Your task to perform on an android device: Search for a coffee table on IKEA Image 0: 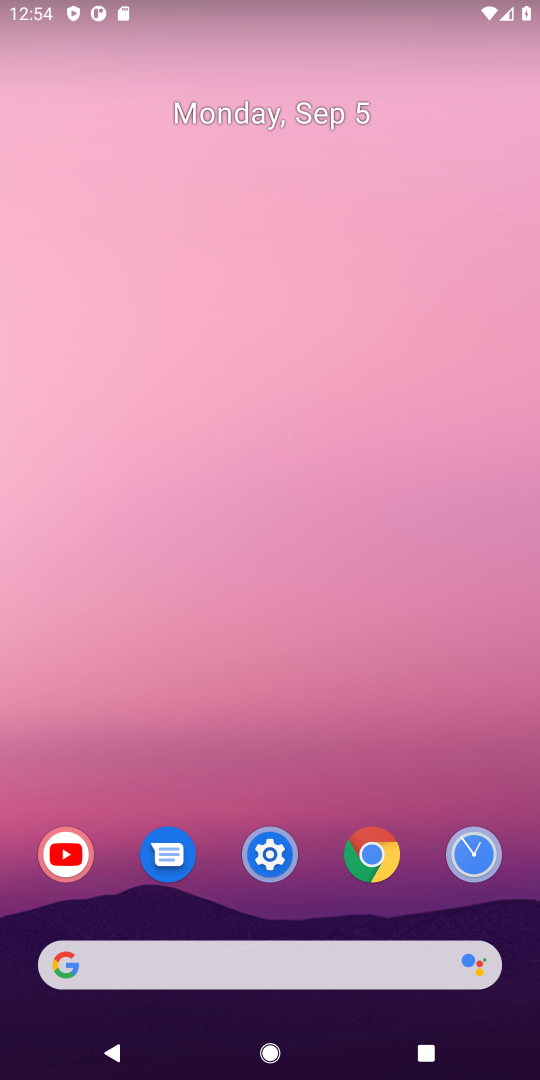
Step 0: click (199, 972)
Your task to perform on an android device: Search for a coffee table on IKEA Image 1: 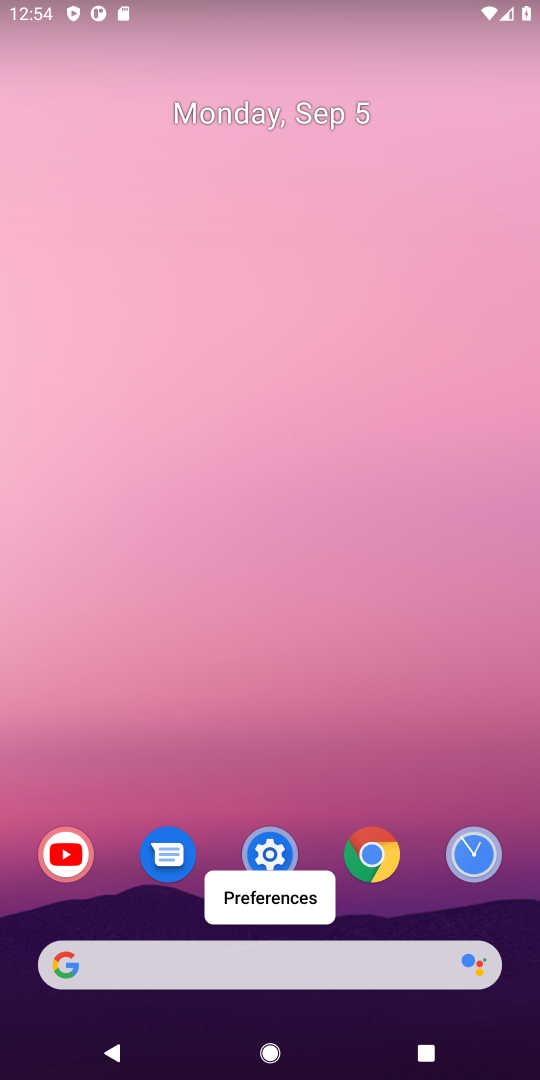
Step 1: click (292, 959)
Your task to perform on an android device: Search for a coffee table on IKEA Image 2: 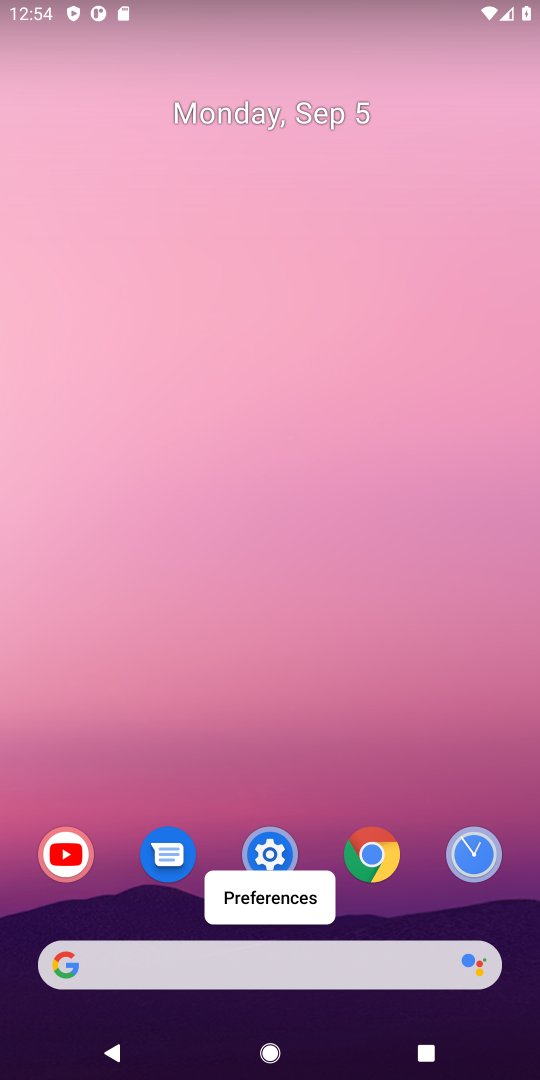
Step 2: click (238, 971)
Your task to perform on an android device: Search for a coffee table on IKEA Image 3: 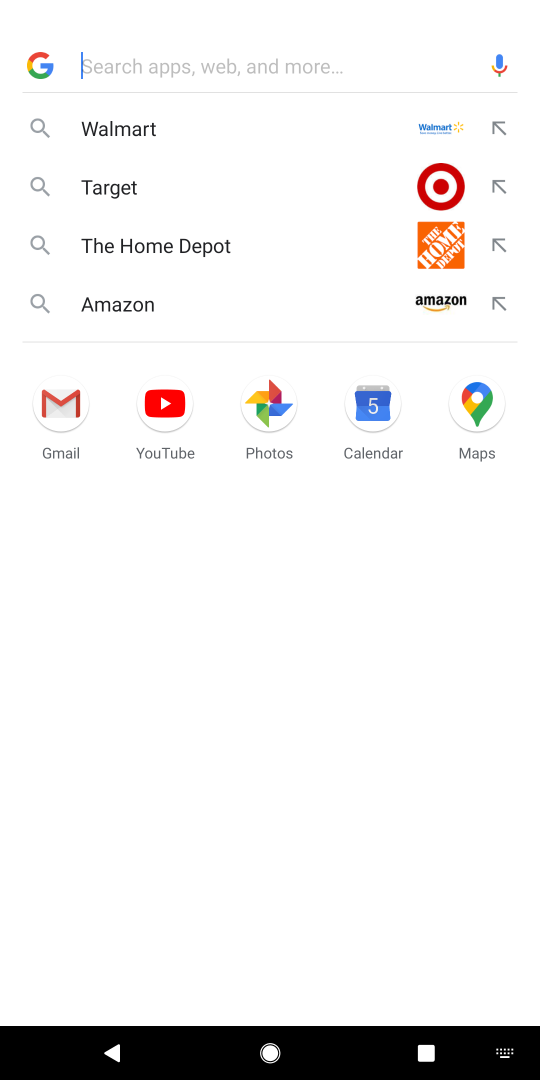
Step 3: type "IKEA"
Your task to perform on an android device: Search for a coffee table on IKEA Image 4: 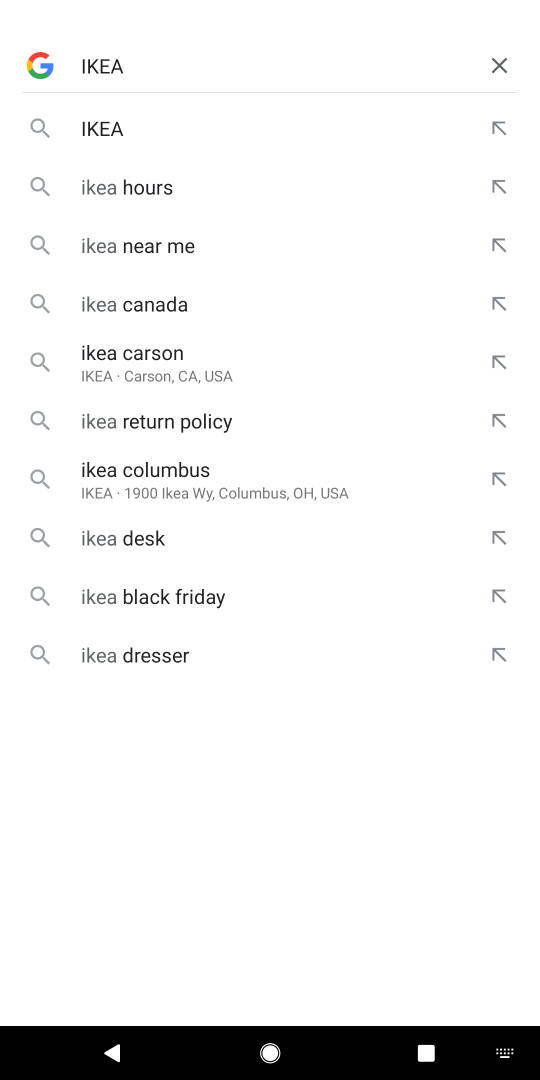
Step 4: type ""
Your task to perform on an android device: Search for a coffee table on IKEA Image 5: 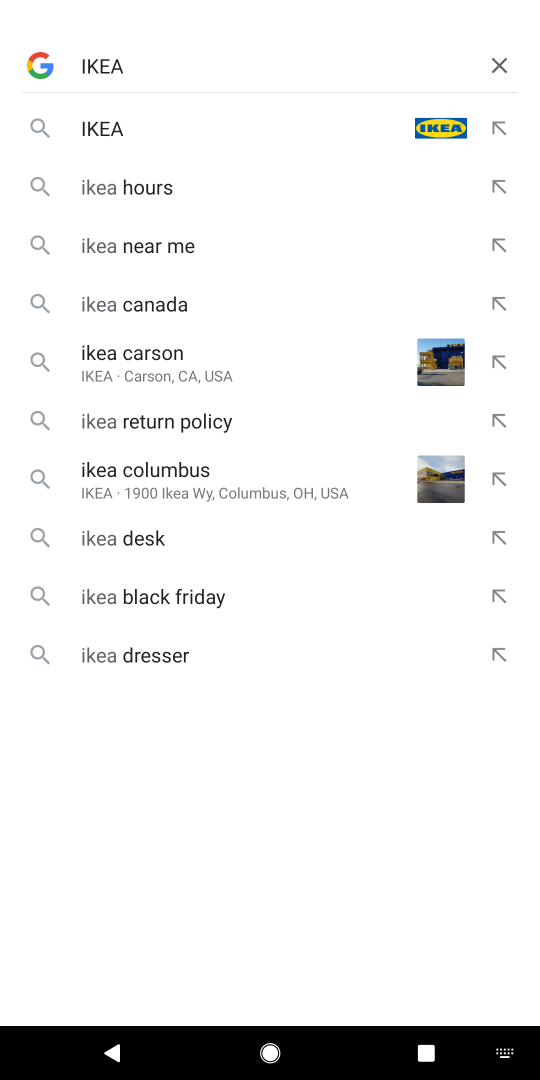
Step 5: click (127, 111)
Your task to perform on an android device: Search for a coffee table on IKEA Image 6: 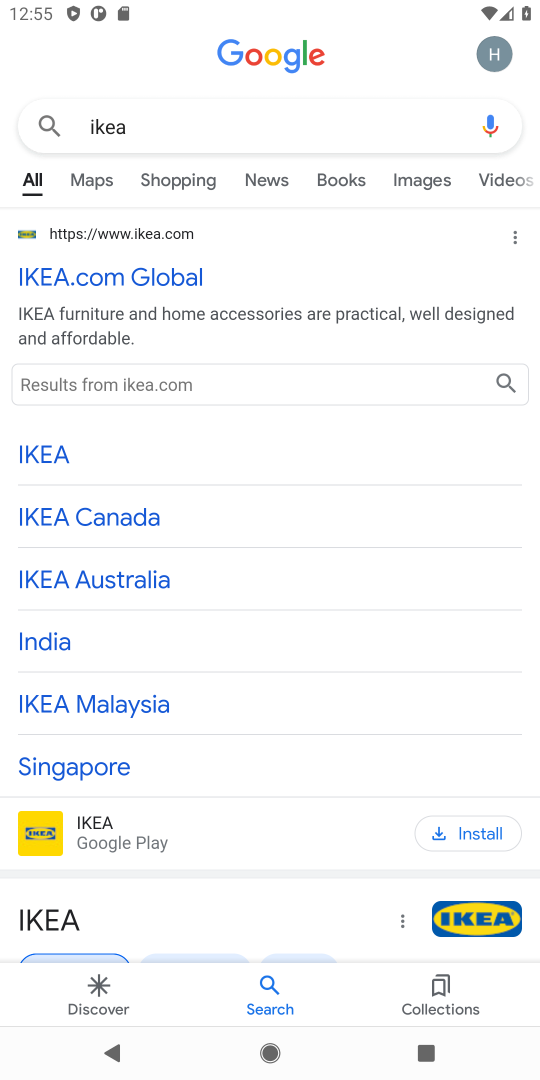
Step 6: drag from (186, 738) to (231, 336)
Your task to perform on an android device: Search for a coffee table on IKEA Image 7: 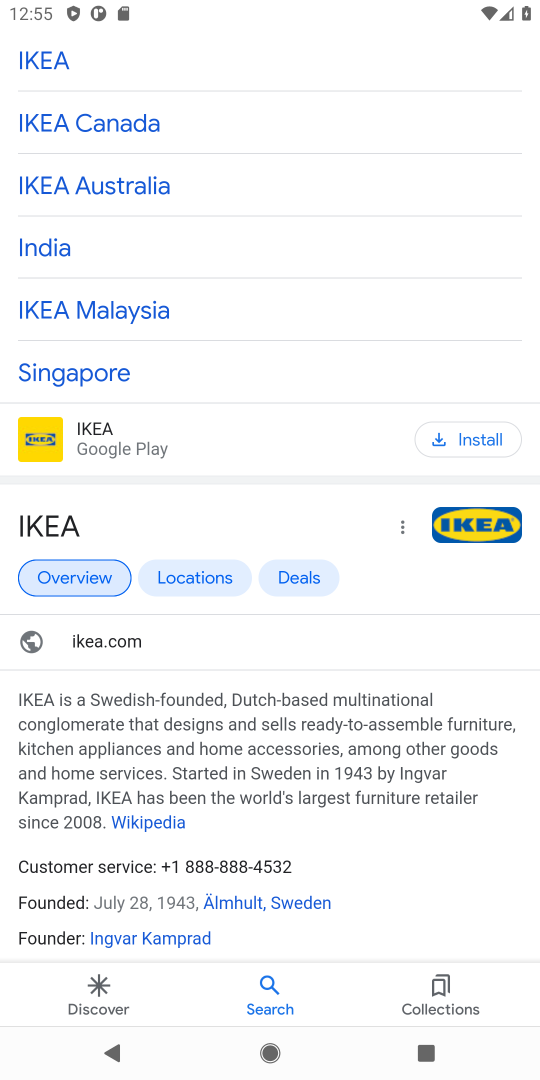
Step 7: click (207, 320)
Your task to perform on an android device: Search for a coffee table on IKEA Image 8: 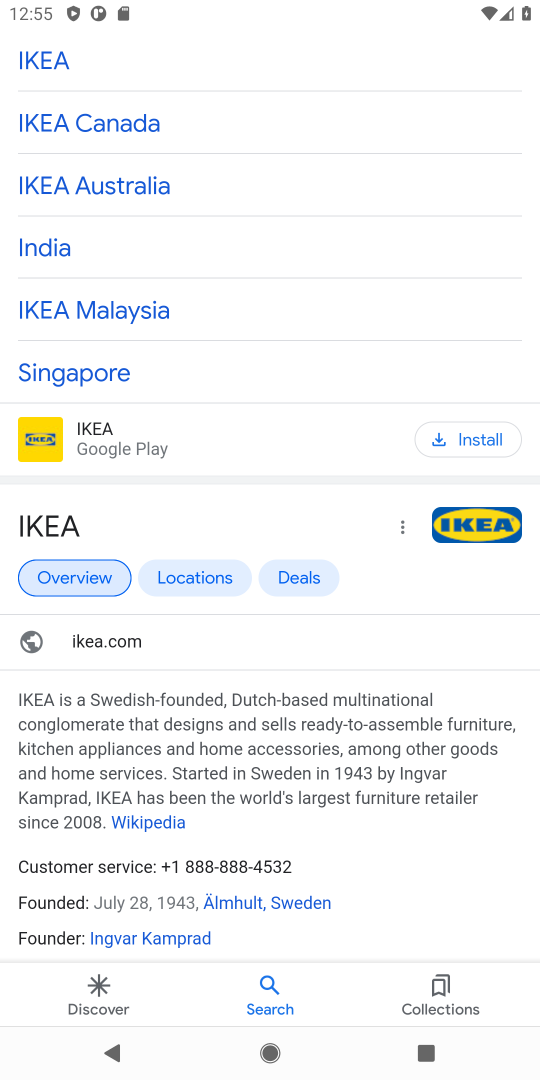
Step 8: task complete